Your task to perform on an android device: Open calendar and show me the fourth week of next month Image 0: 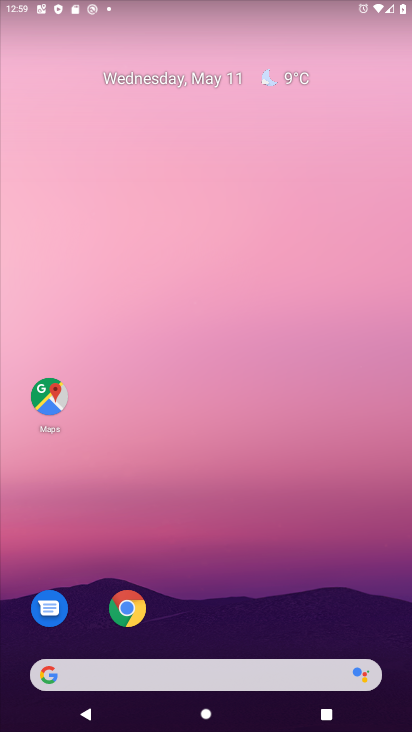
Step 0: drag from (280, 614) to (185, 84)
Your task to perform on an android device: Open calendar and show me the fourth week of next month Image 1: 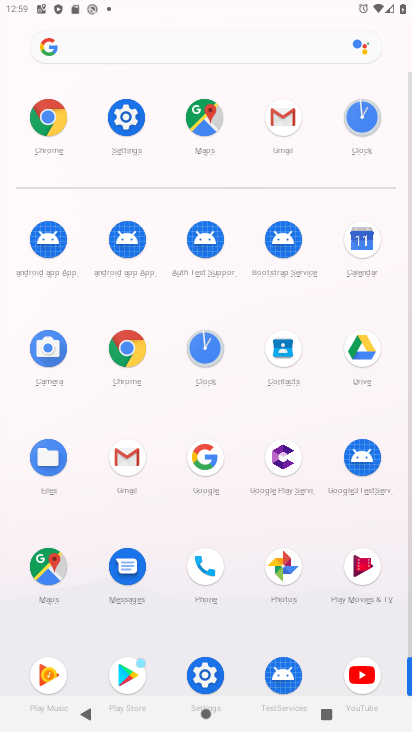
Step 1: click (367, 252)
Your task to perform on an android device: Open calendar and show me the fourth week of next month Image 2: 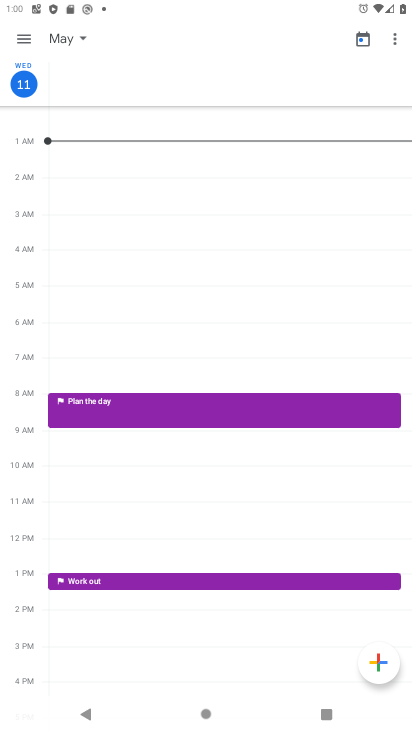
Step 2: press home button
Your task to perform on an android device: Open calendar and show me the fourth week of next month Image 3: 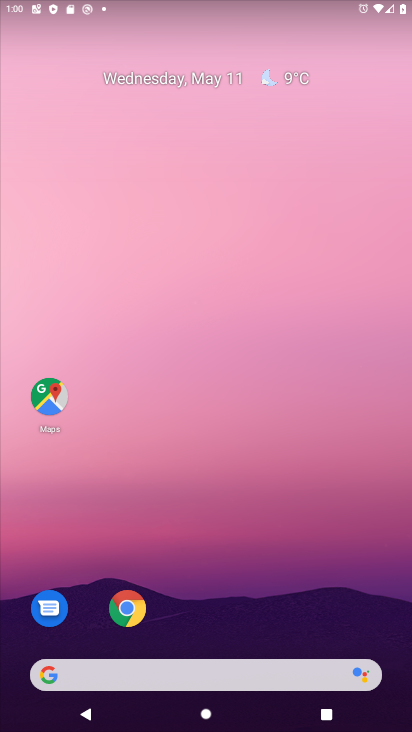
Step 3: drag from (335, 547) to (280, 58)
Your task to perform on an android device: Open calendar and show me the fourth week of next month Image 4: 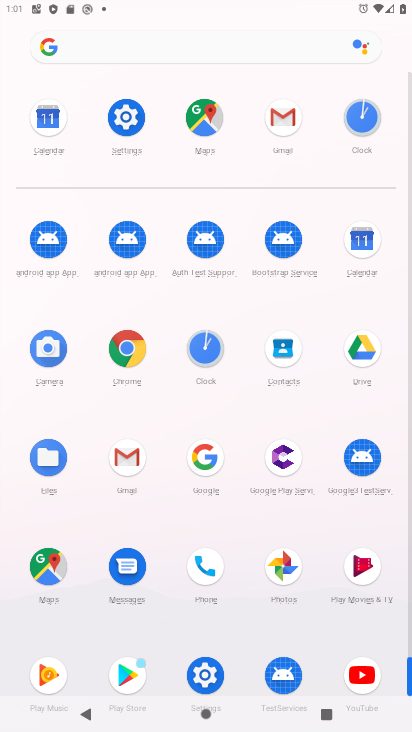
Step 4: click (365, 252)
Your task to perform on an android device: Open calendar and show me the fourth week of next month Image 5: 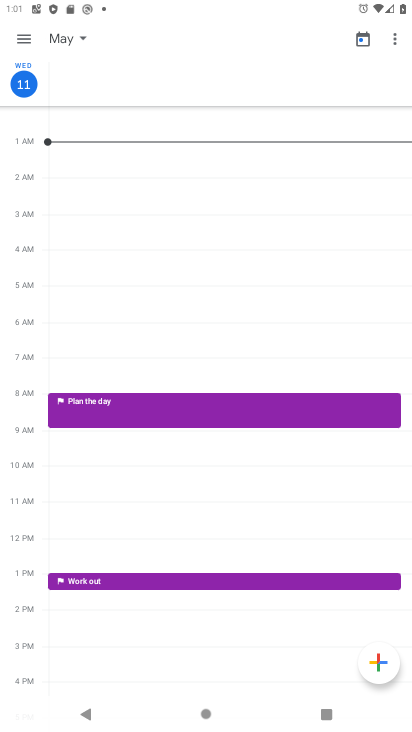
Step 5: click (82, 38)
Your task to perform on an android device: Open calendar and show me the fourth week of next month Image 6: 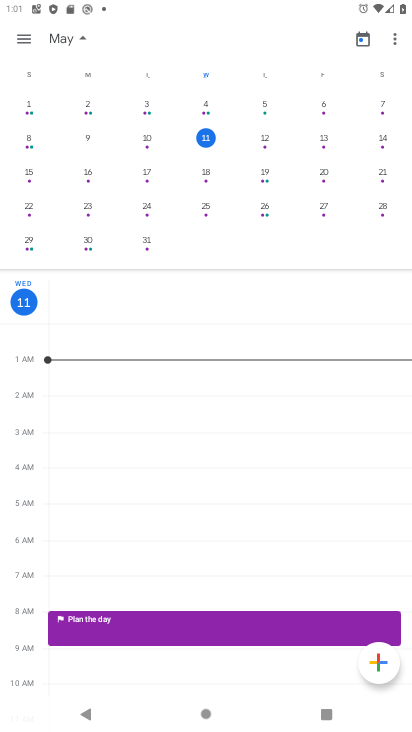
Step 6: drag from (307, 176) to (7, 142)
Your task to perform on an android device: Open calendar and show me the fourth week of next month Image 7: 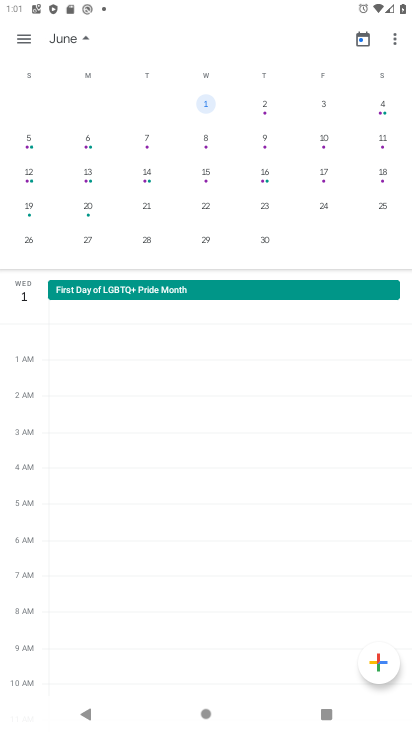
Step 7: click (30, 247)
Your task to perform on an android device: Open calendar and show me the fourth week of next month Image 8: 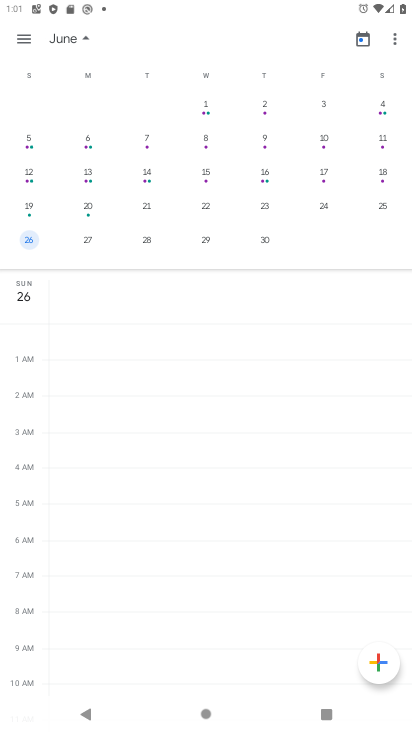
Step 8: task complete